Your task to perform on an android device: Open network settings Image 0: 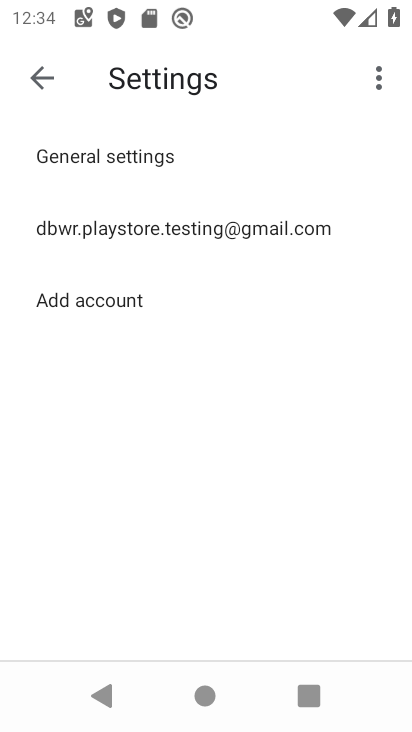
Step 0: press home button
Your task to perform on an android device: Open network settings Image 1: 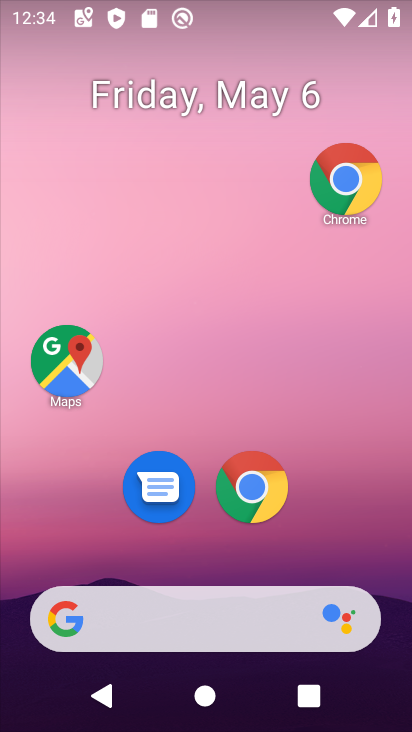
Step 1: drag from (343, 522) to (292, 134)
Your task to perform on an android device: Open network settings Image 2: 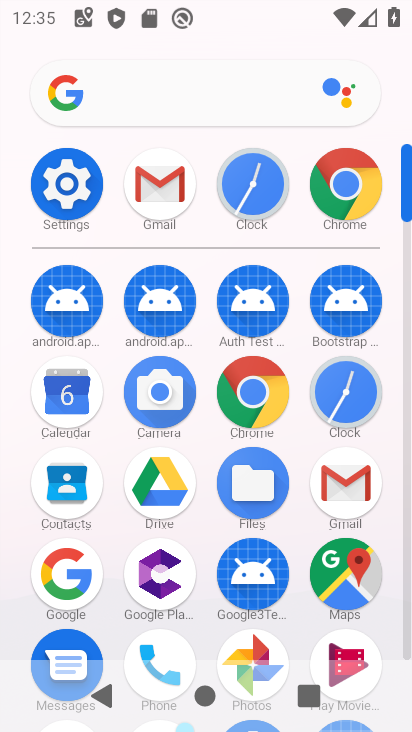
Step 2: click (67, 209)
Your task to perform on an android device: Open network settings Image 3: 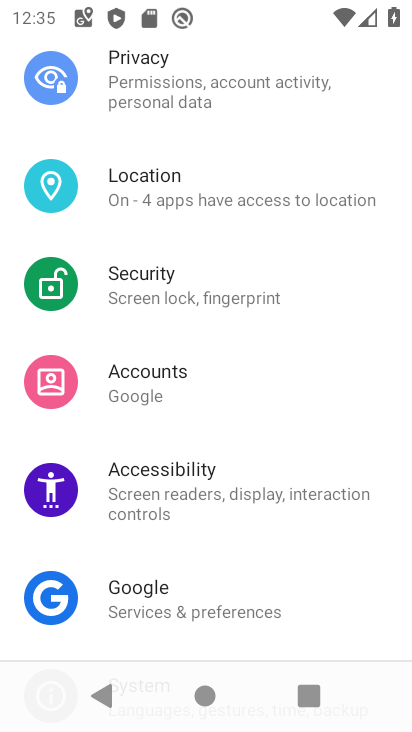
Step 3: drag from (202, 71) to (171, 722)
Your task to perform on an android device: Open network settings Image 4: 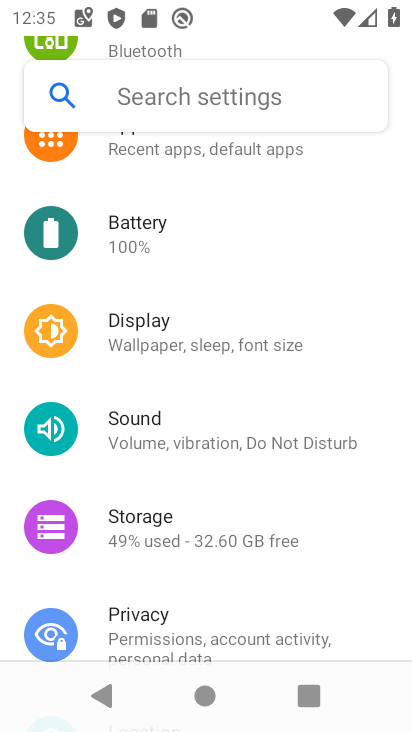
Step 4: drag from (198, 239) to (205, 638)
Your task to perform on an android device: Open network settings Image 5: 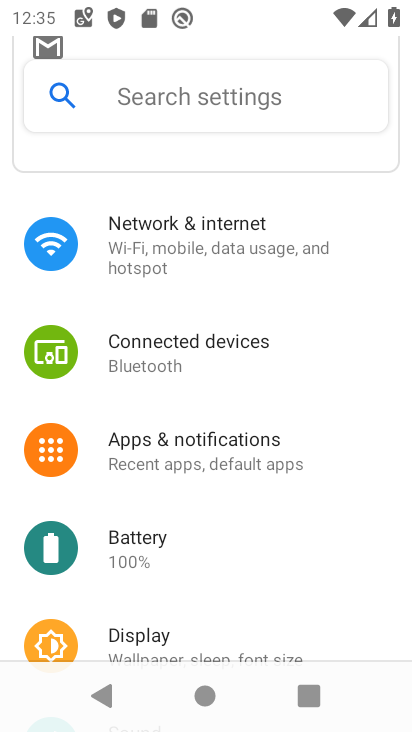
Step 5: click (135, 274)
Your task to perform on an android device: Open network settings Image 6: 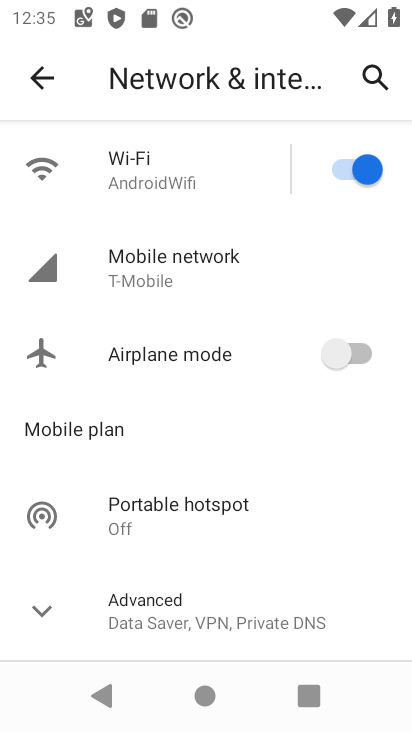
Step 6: task complete